Your task to perform on an android device: uninstall "Grab" Image 0: 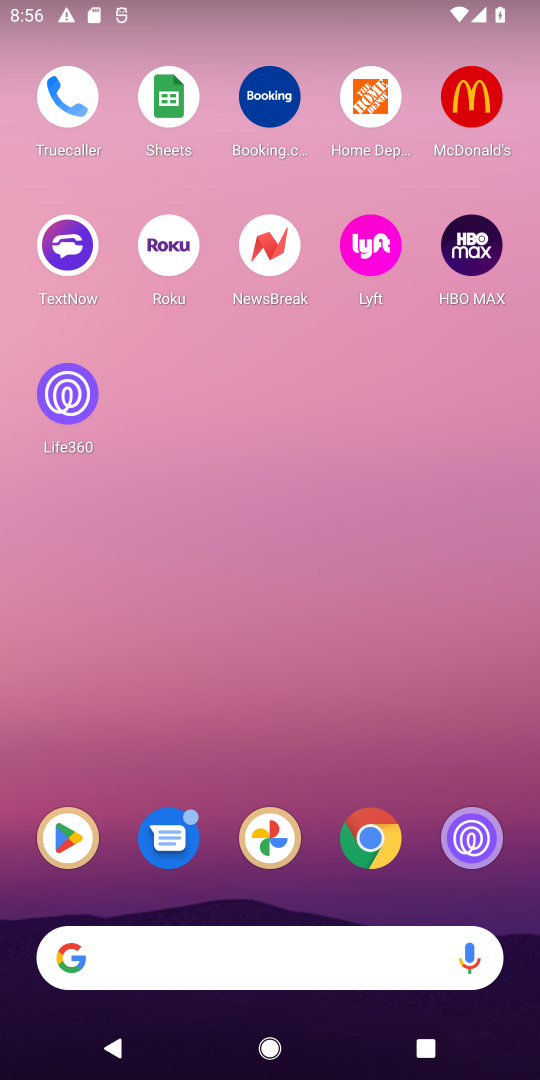
Step 0: drag from (274, 916) to (225, 369)
Your task to perform on an android device: uninstall "Grab" Image 1: 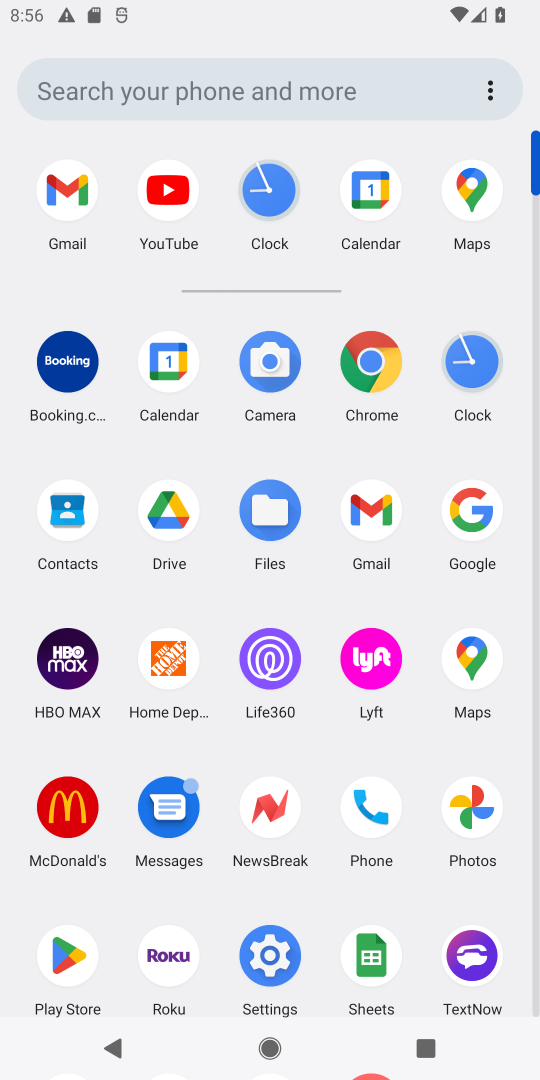
Step 1: click (68, 976)
Your task to perform on an android device: uninstall "Grab" Image 2: 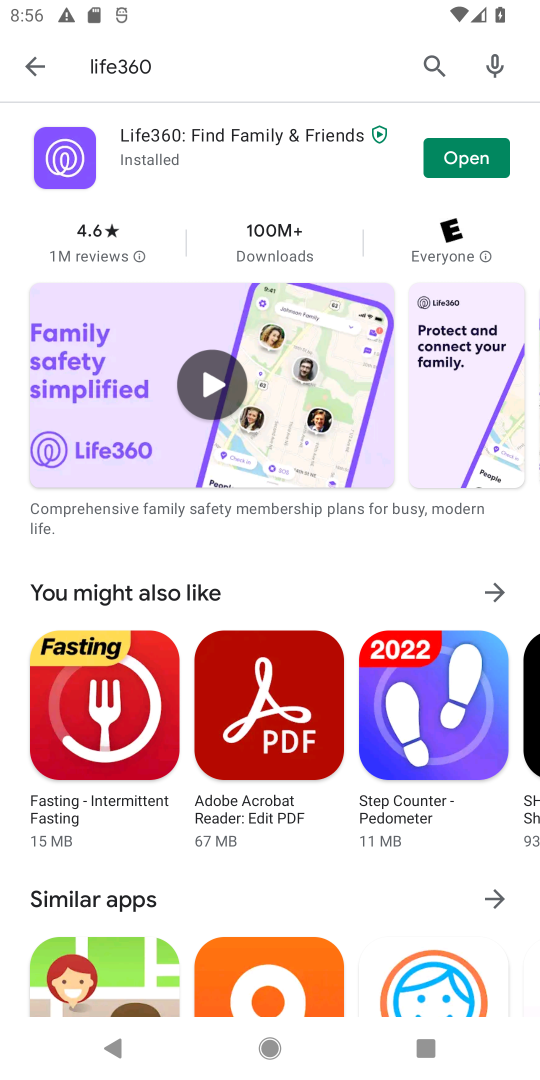
Step 2: click (431, 66)
Your task to perform on an android device: uninstall "Grab" Image 3: 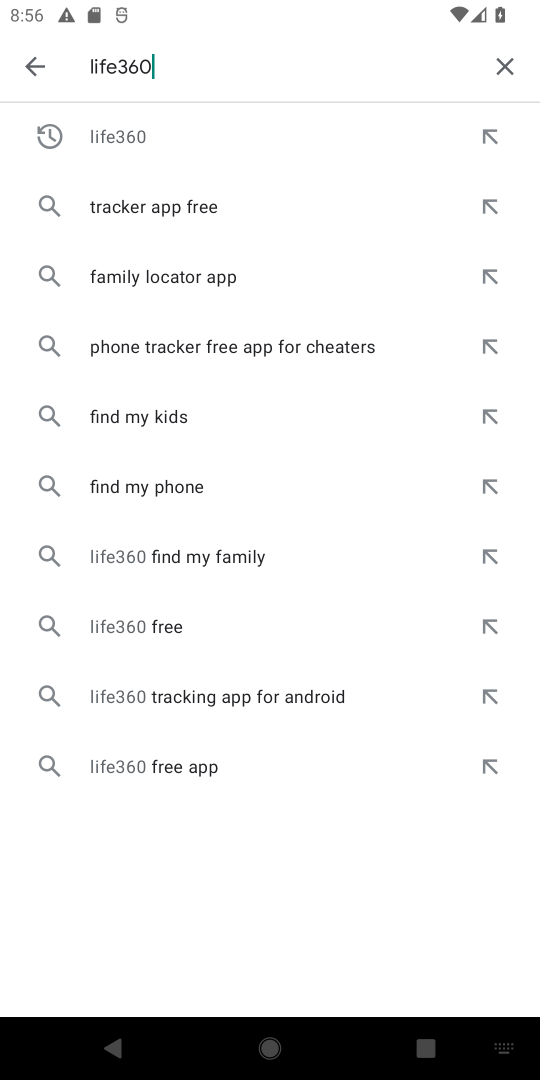
Step 3: click (500, 62)
Your task to perform on an android device: uninstall "Grab" Image 4: 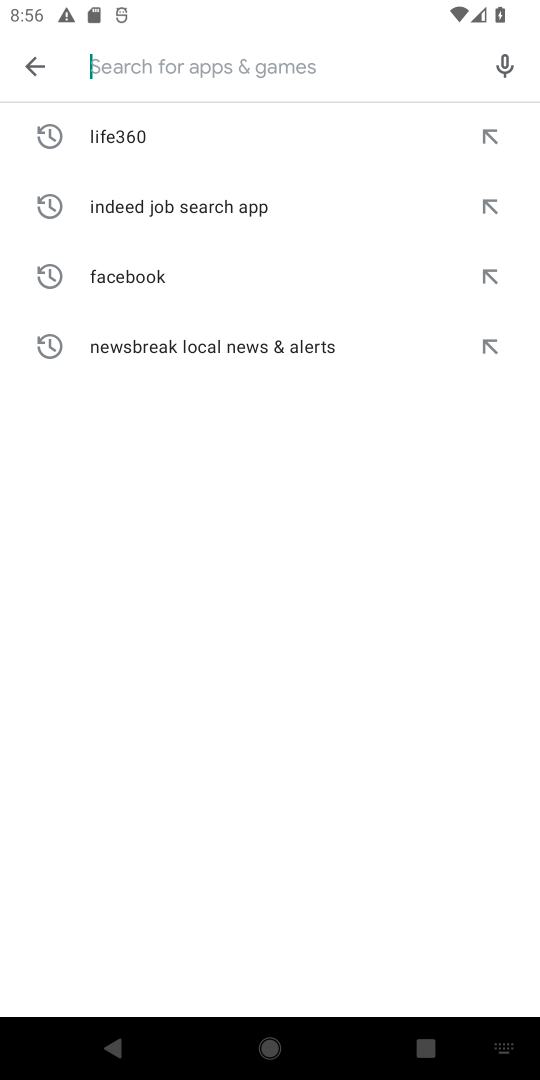
Step 4: type "grab"
Your task to perform on an android device: uninstall "Grab" Image 5: 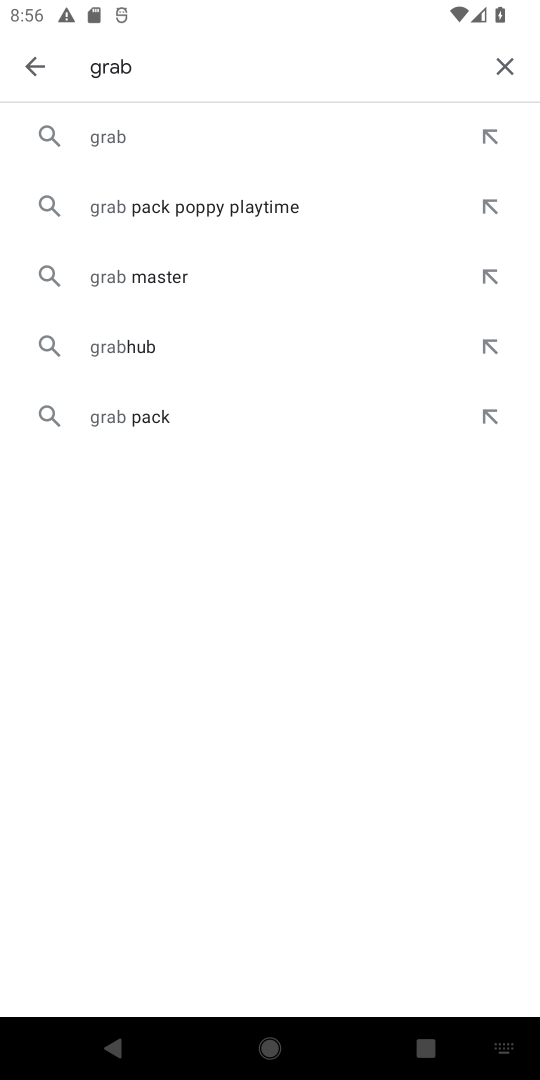
Step 5: click (122, 127)
Your task to perform on an android device: uninstall "Grab" Image 6: 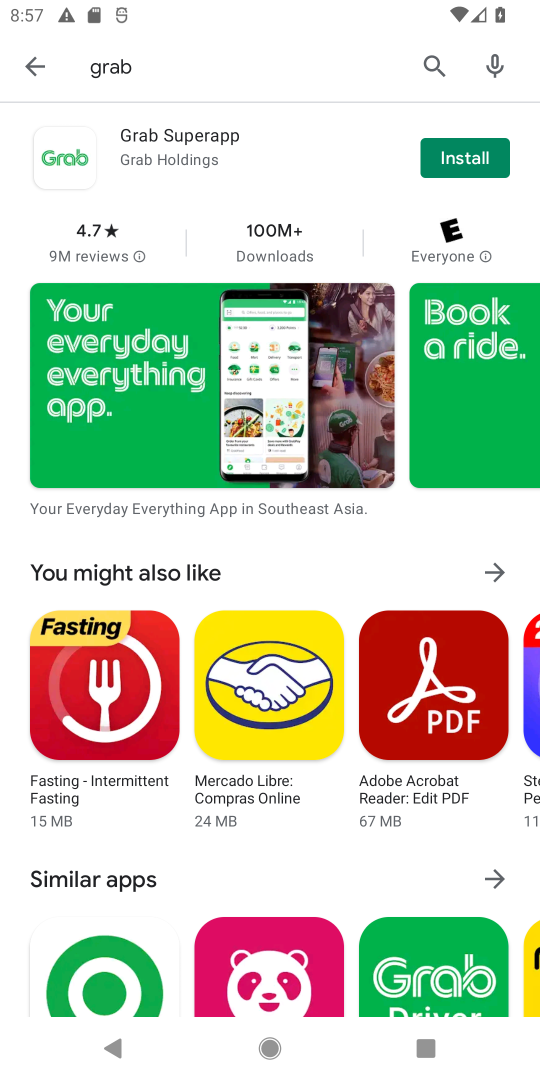
Step 6: task complete